Your task to perform on an android device: Toggle the flashlight Image 0: 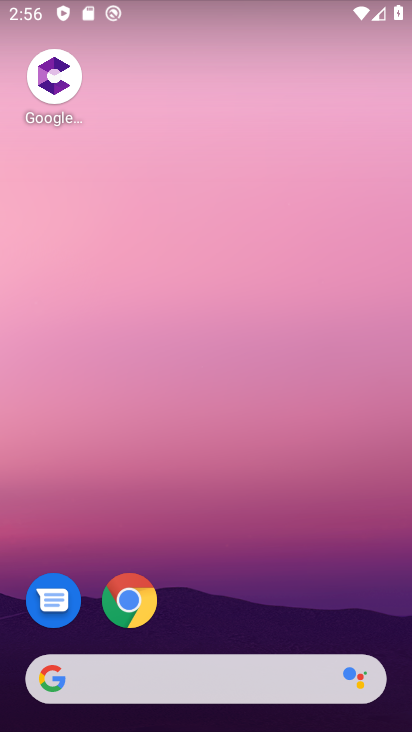
Step 0: drag from (193, 723) to (187, 42)
Your task to perform on an android device: Toggle the flashlight Image 1: 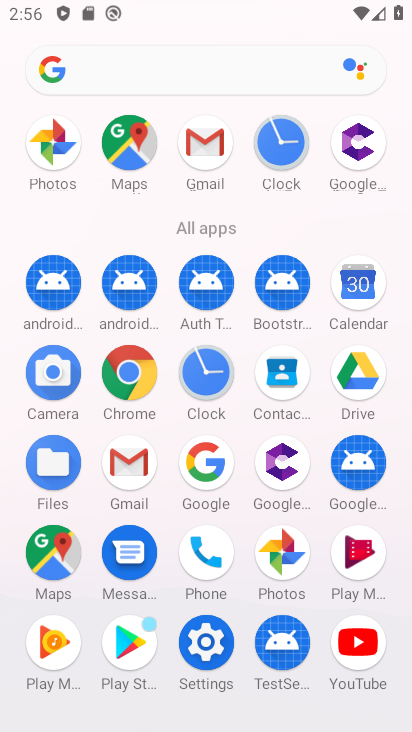
Step 1: click (214, 649)
Your task to perform on an android device: Toggle the flashlight Image 2: 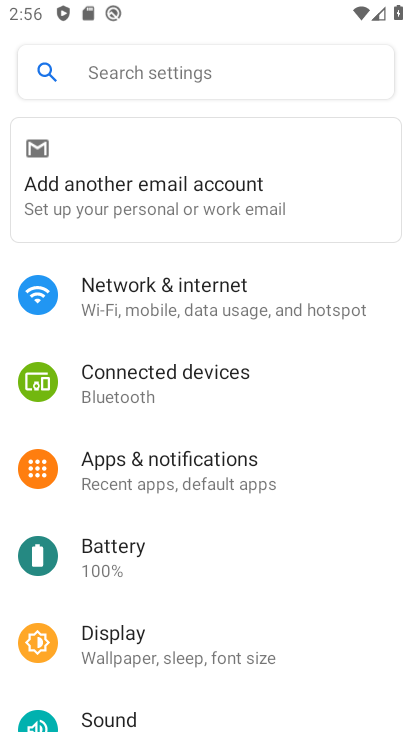
Step 2: task complete